Your task to perform on an android device: Set the phone to "Do not disturb". Image 0: 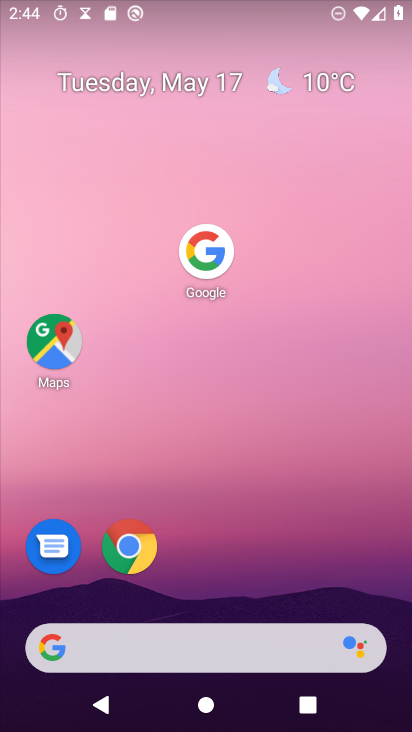
Step 0: drag from (163, 637) to (290, 118)
Your task to perform on an android device: Set the phone to "Do not disturb". Image 1: 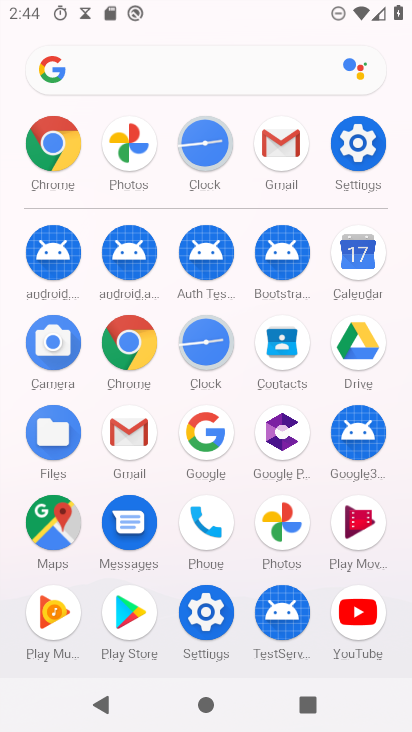
Step 1: click (366, 146)
Your task to perform on an android device: Set the phone to "Do not disturb". Image 2: 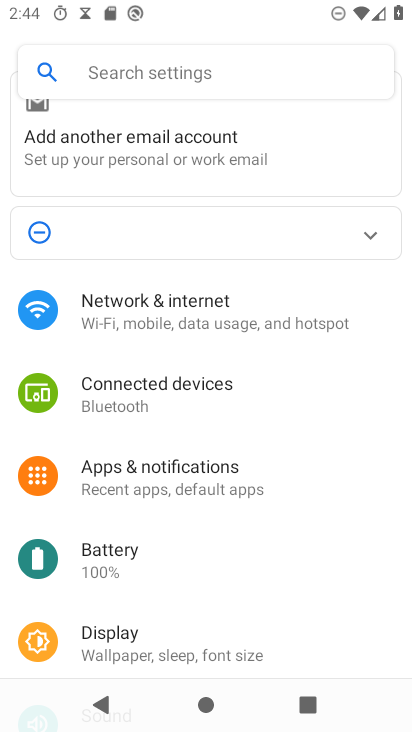
Step 2: drag from (244, 586) to (357, 299)
Your task to perform on an android device: Set the phone to "Do not disturb". Image 3: 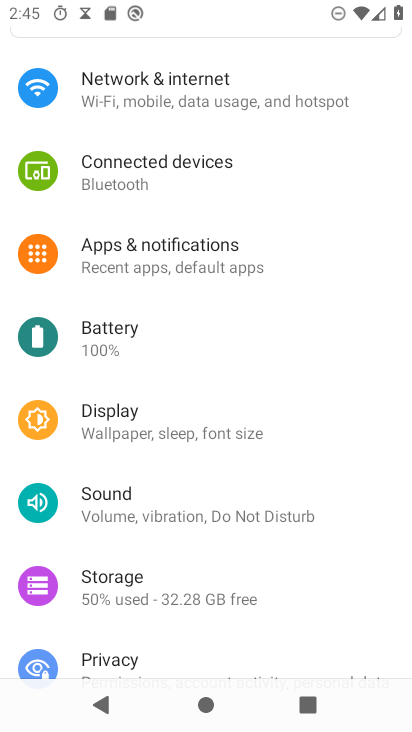
Step 3: click (182, 520)
Your task to perform on an android device: Set the phone to "Do not disturb". Image 4: 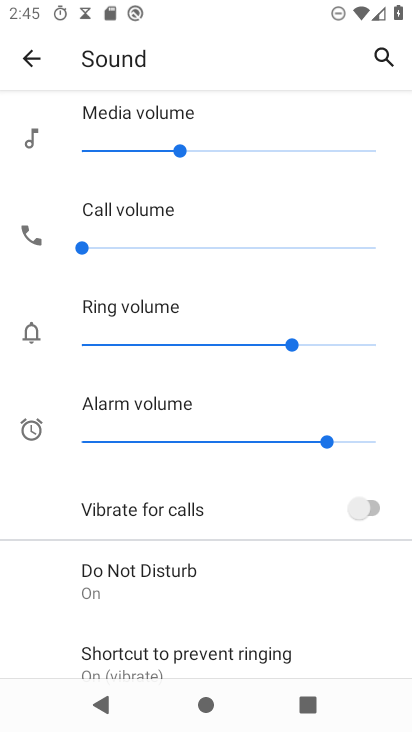
Step 4: drag from (165, 583) to (297, 308)
Your task to perform on an android device: Set the phone to "Do not disturb". Image 5: 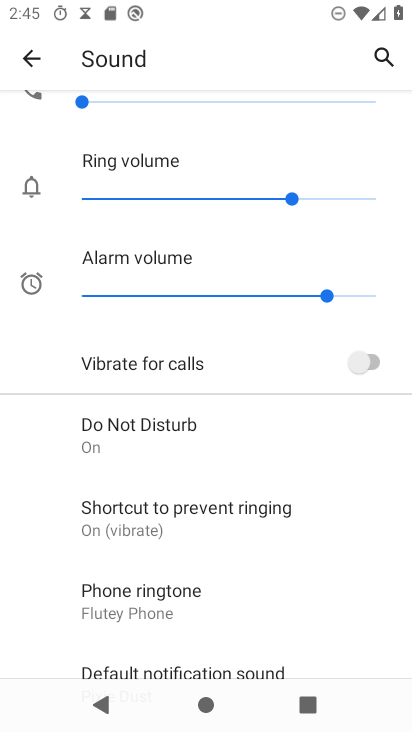
Step 5: click (127, 427)
Your task to perform on an android device: Set the phone to "Do not disturb". Image 6: 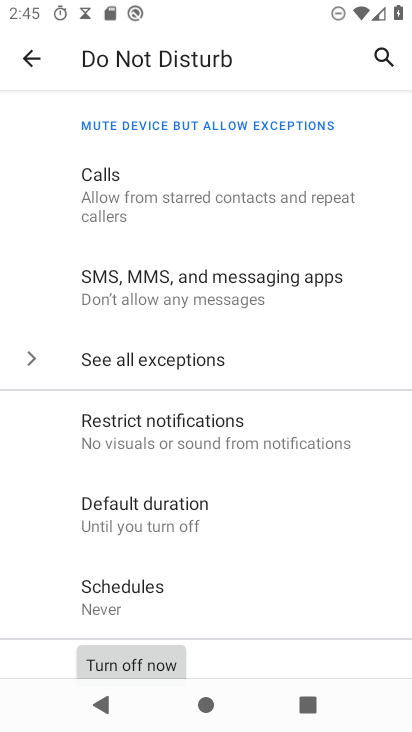
Step 6: task complete